Your task to perform on an android device: Search for Italian restaurants on Maps Image 0: 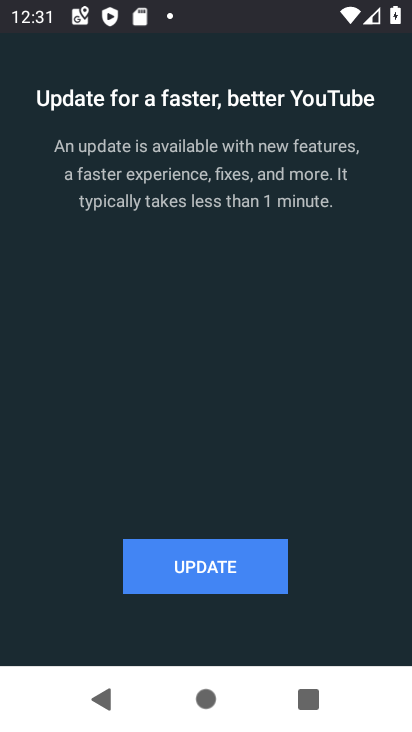
Step 0: press back button
Your task to perform on an android device: Search for Italian restaurants on Maps Image 1: 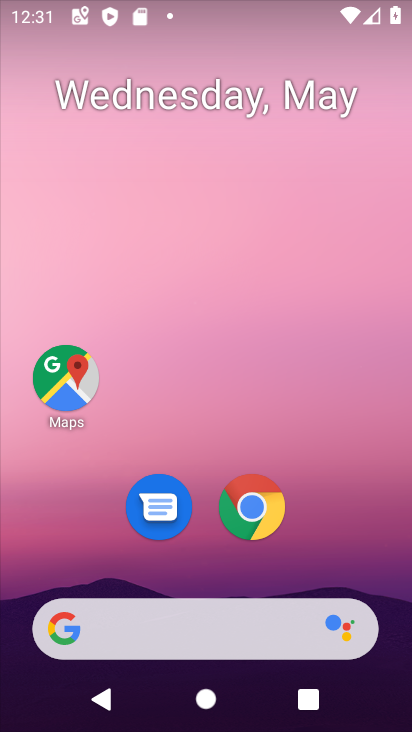
Step 1: click (65, 373)
Your task to perform on an android device: Search for Italian restaurants on Maps Image 2: 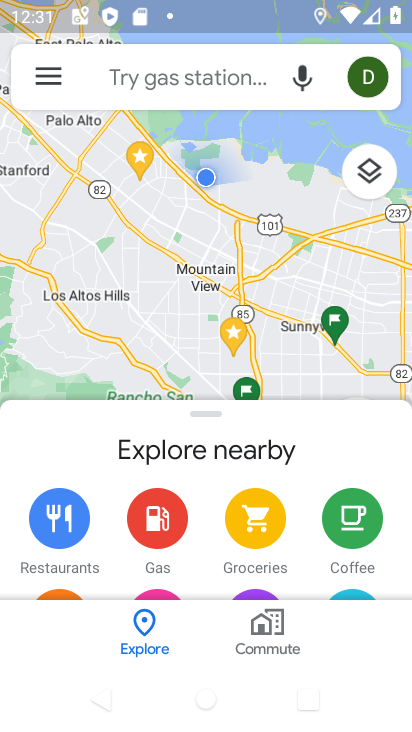
Step 2: click (128, 71)
Your task to perform on an android device: Search for Italian restaurants on Maps Image 3: 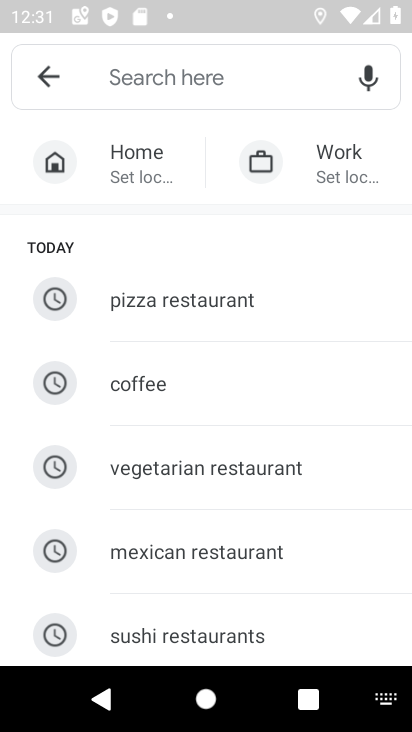
Step 3: drag from (195, 613) to (229, 307)
Your task to perform on an android device: Search for Italian restaurants on Maps Image 4: 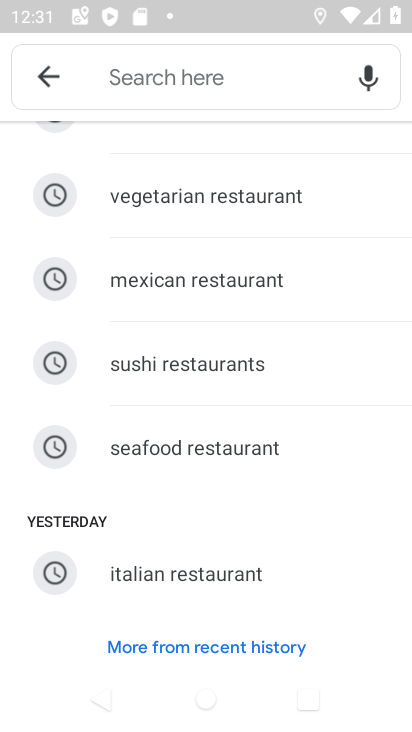
Step 4: click (178, 584)
Your task to perform on an android device: Search for Italian restaurants on Maps Image 5: 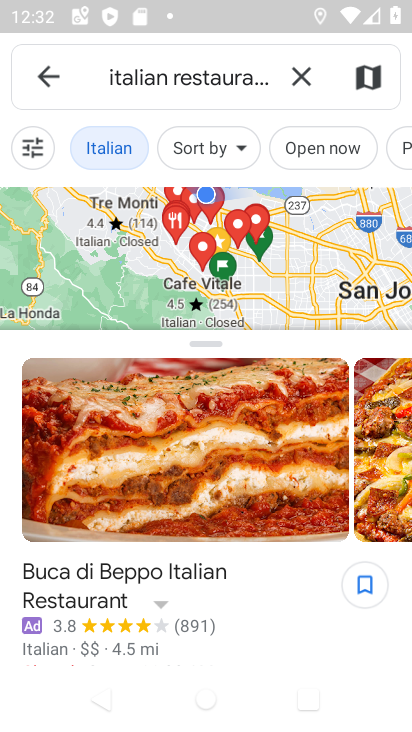
Step 5: task complete